Your task to perform on an android device: Go to network settings Image 0: 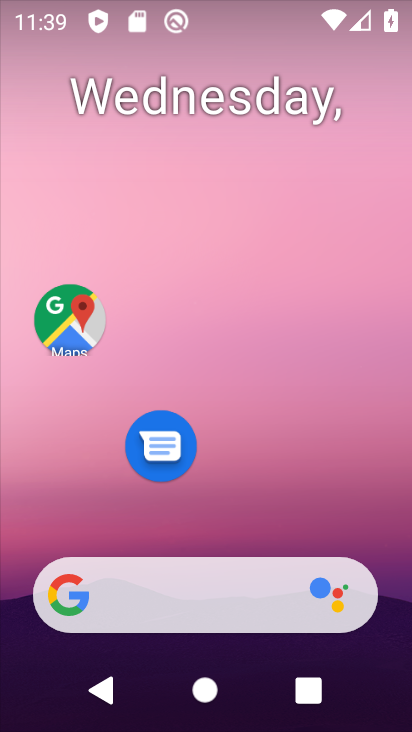
Step 0: drag from (199, 409) to (54, 65)
Your task to perform on an android device: Go to network settings Image 1: 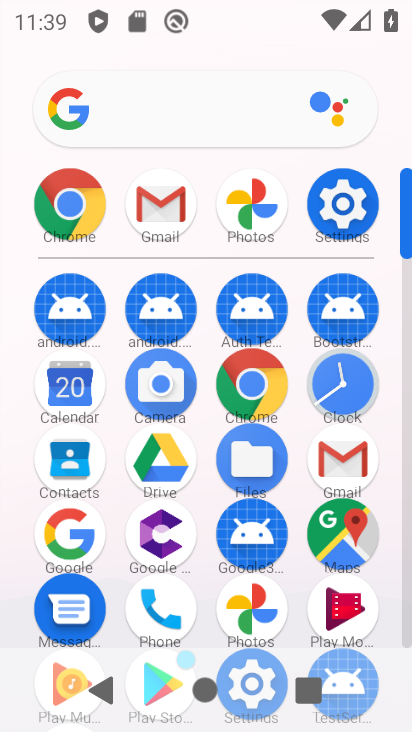
Step 1: click (345, 219)
Your task to perform on an android device: Go to network settings Image 2: 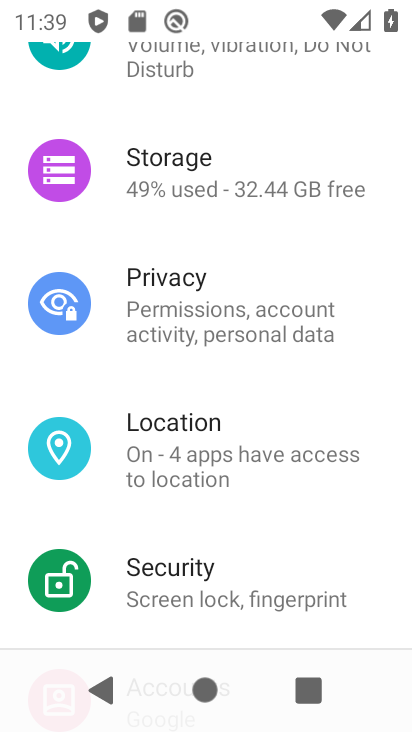
Step 2: drag from (302, 160) to (299, 533)
Your task to perform on an android device: Go to network settings Image 3: 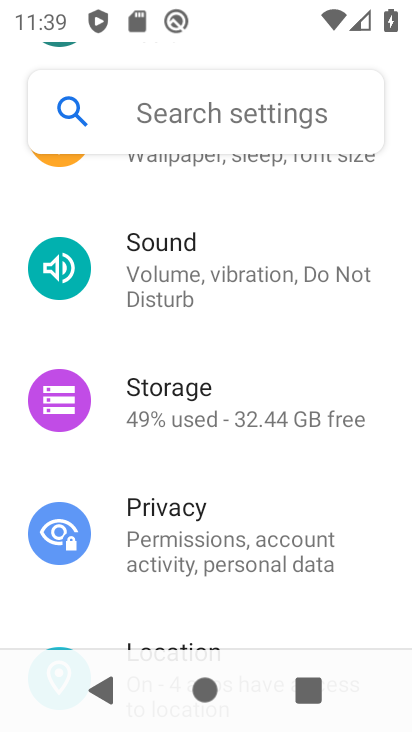
Step 3: drag from (291, 228) to (252, 564)
Your task to perform on an android device: Go to network settings Image 4: 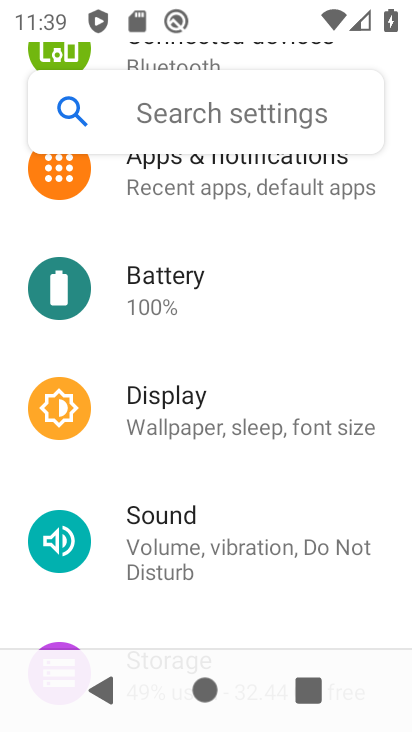
Step 4: drag from (276, 271) to (263, 587)
Your task to perform on an android device: Go to network settings Image 5: 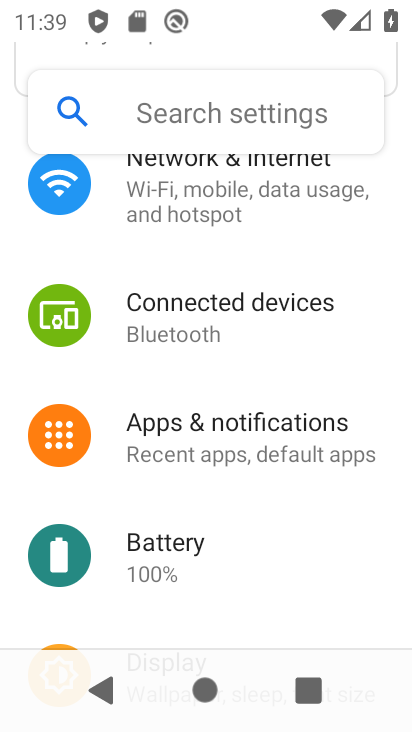
Step 5: click (197, 199)
Your task to perform on an android device: Go to network settings Image 6: 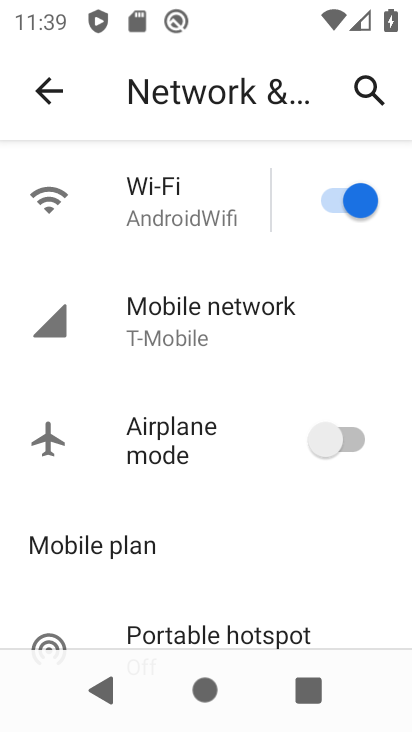
Step 6: click (204, 339)
Your task to perform on an android device: Go to network settings Image 7: 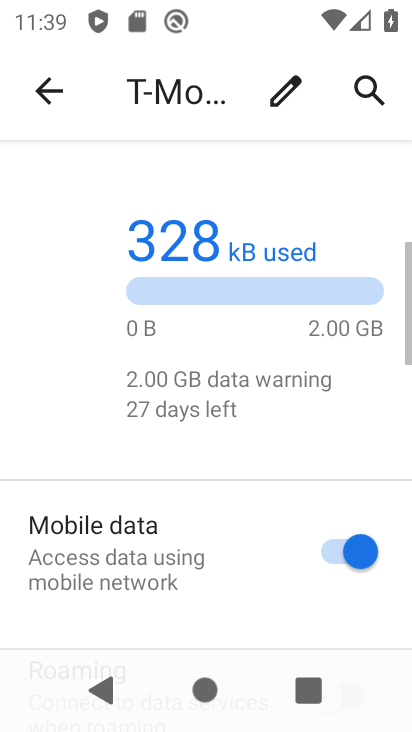
Step 7: task complete